Your task to perform on an android device: Go to battery settings Image 0: 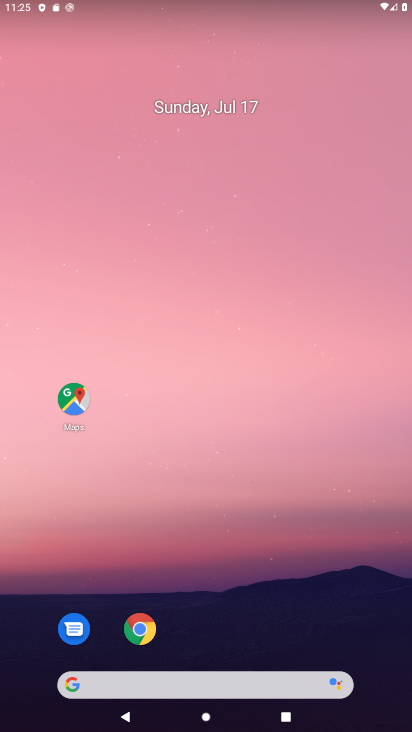
Step 0: drag from (192, 624) to (279, 102)
Your task to perform on an android device: Go to battery settings Image 1: 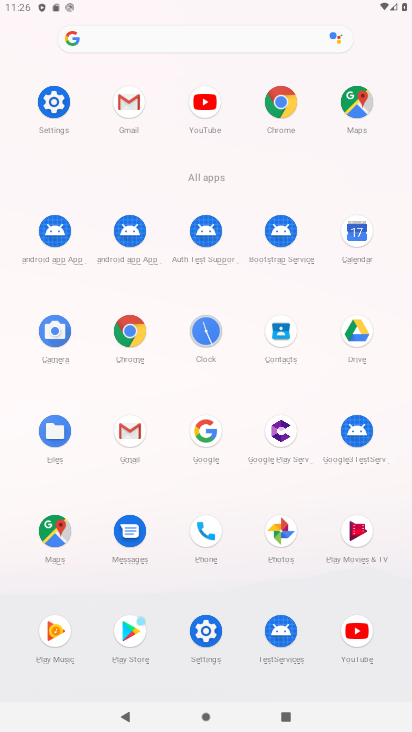
Step 1: click (223, 624)
Your task to perform on an android device: Go to battery settings Image 2: 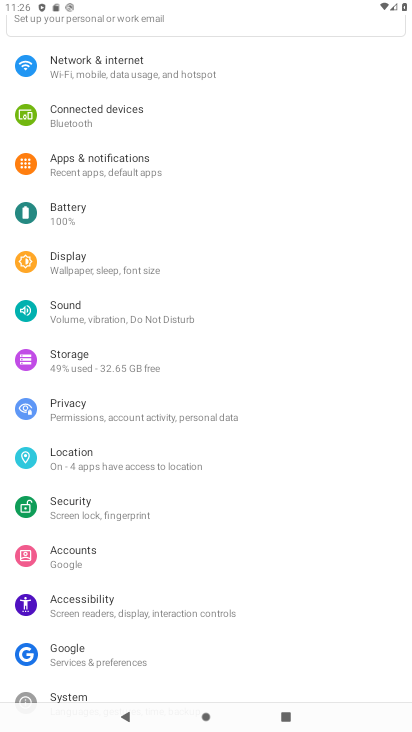
Step 2: click (72, 207)
Your task to perform on an android device: Go to battery settings Image 3: 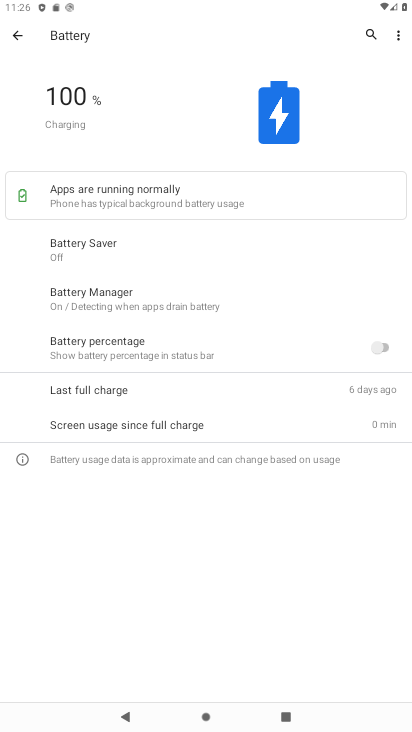
Step 3: task complete